Your task to perform on an android device: turn on the 12-hour format for clock Image 0: 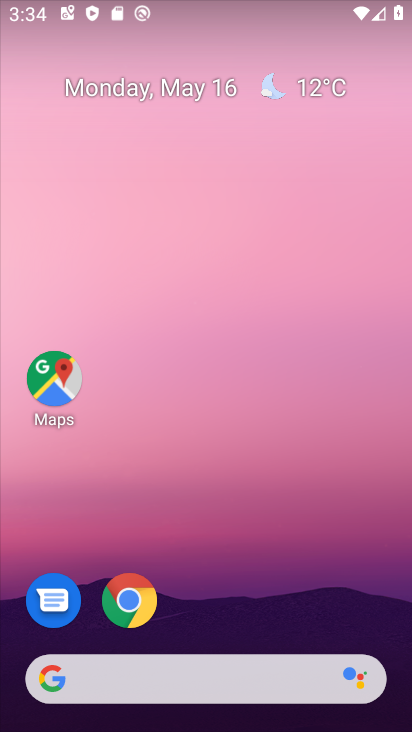
Step 0: drag from (205, 639) to (197, 240)
Your task to perform on an android device: turn on the 12-hour format for clock Image 1: 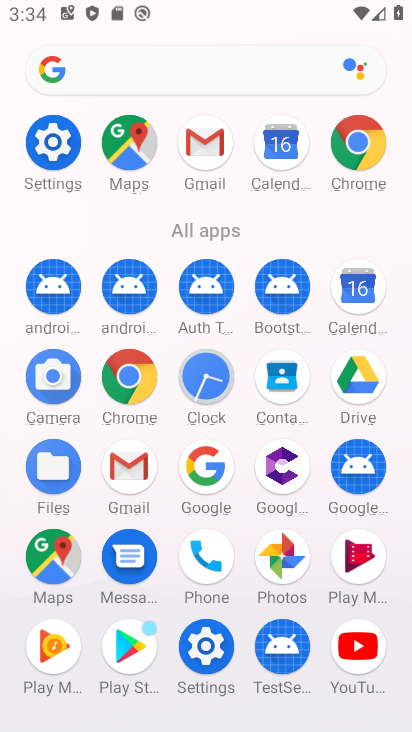
Step 1: click (204, 385)
Your task to perform on an android device: turn on the 12-hour format for clock Image 2: 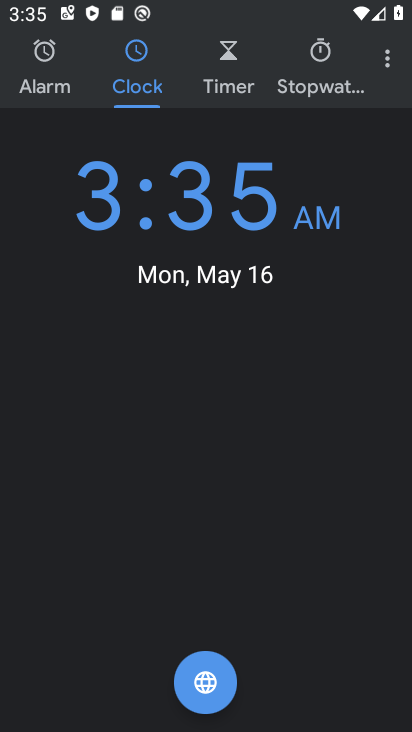
Step 2: click (381, 63)
Your task to perform on an android device: turn on the 12-hour format for clock Image 3: 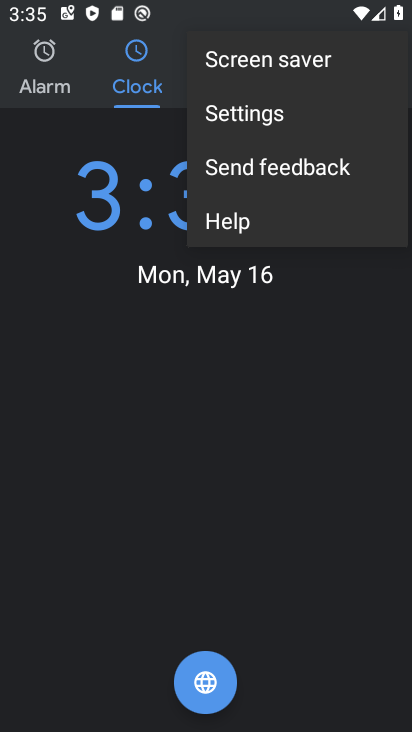
Step 3: click (290, 111)
Your task to perform on an android device: turn on the 12-hour format for clock Image 4: 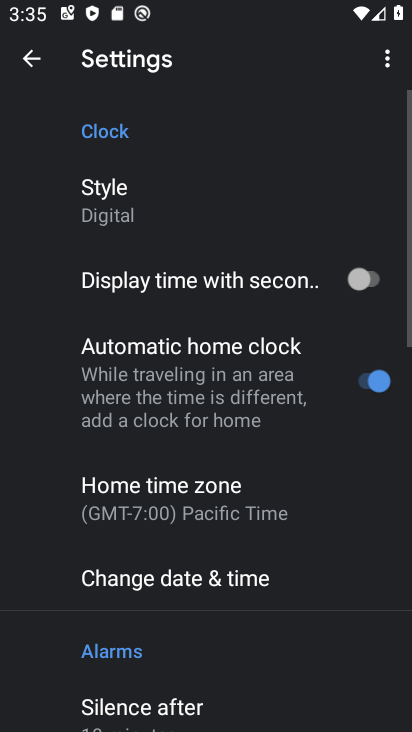
Step 4: drag from (260, 683) to (200, 226)
Your task to perform on an android device: turn on the 12-hour format for clock Image 5: 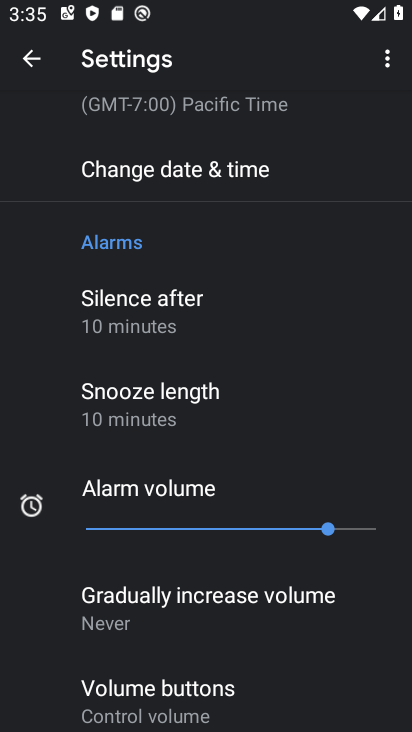
Step 5: drag from (204, 689) to (138, 315)
Your task to perform on an android device: turn on the 12-hour format for clock Image 6: 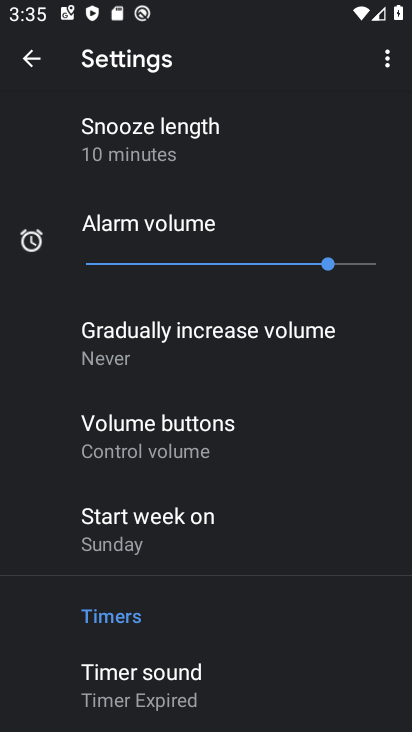
Step 6: drag from (179, 169) to (179, 683)
Your task to perform on an android device: turn on the 12-hour format for clock Image 7: 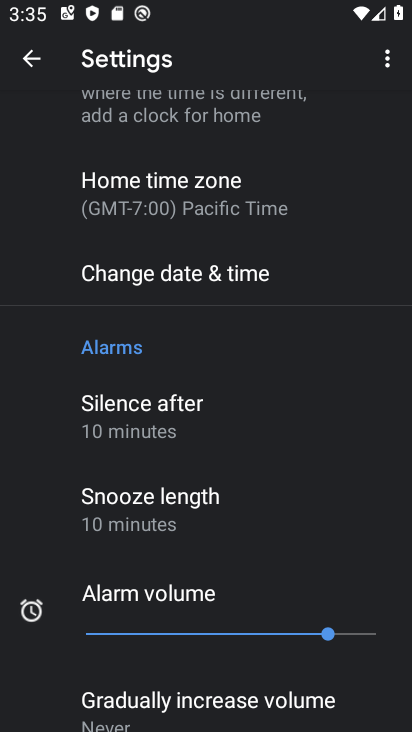
Step 7: click (173, 269)
Your task to perform on an android device: turn on the 12-hour format for clock Image 8: 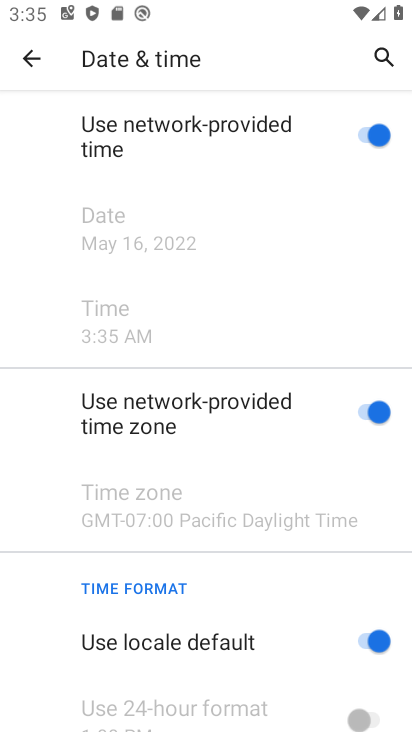
Step 8: task complete